Your task to perform on an android device: Open Maps and search for coffee Image 0: 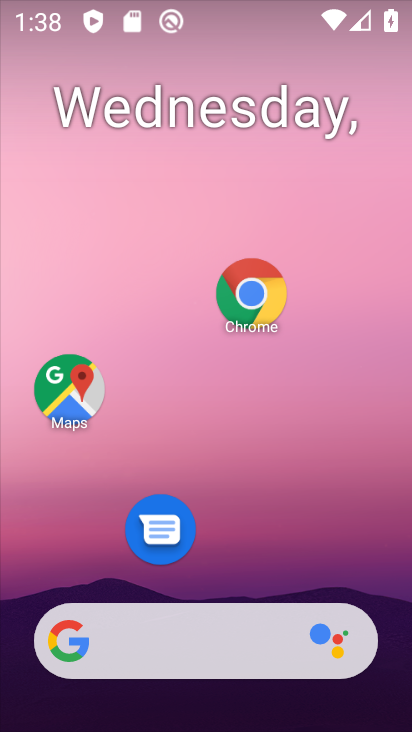
Step 0: click (92, 410)
Your task to perform on an android device: Open Maps and search for coffee Image 1: 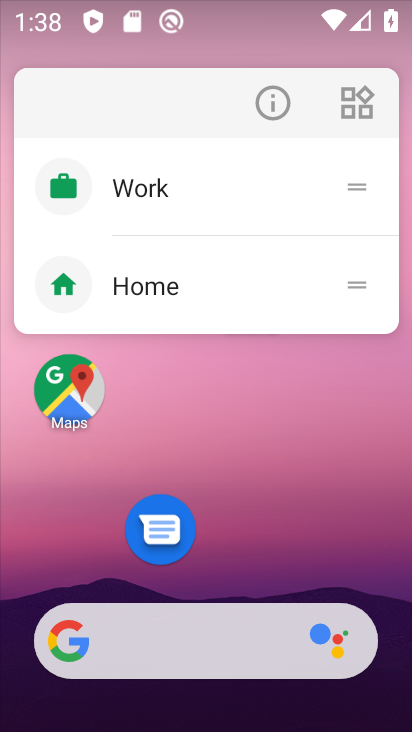
Step 1: click (75, 388)
Your task to perform on an android device: Open Maps and search for coffee Image 2: 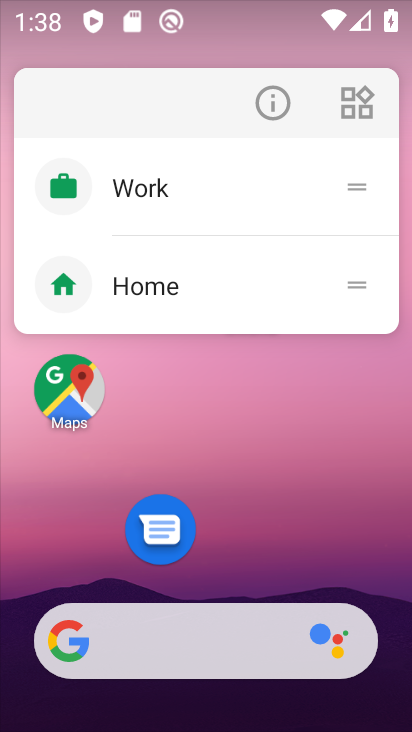
Step 2: click (100, 396)
Your task to perform on an android device: Open Maps and search for coffee Image 3: 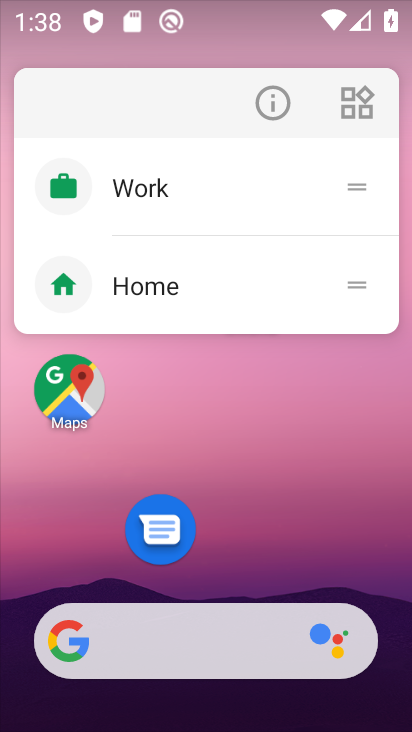
Step 3: click (78, 403)
Your task to perform on an android device: Open Maps and search for coffee Image 4: 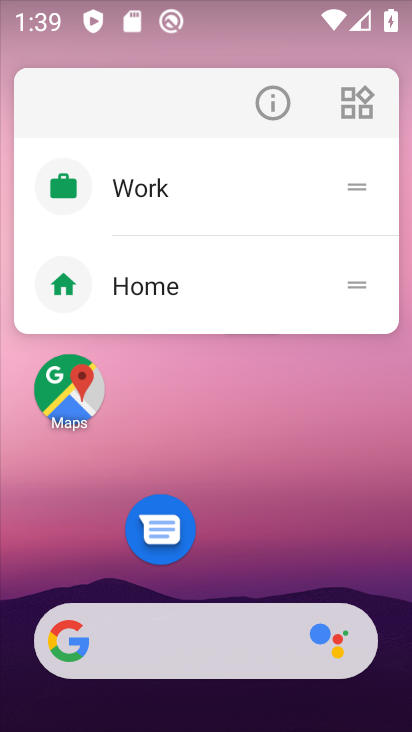
Step 4: click (274, 450)
Your task to perform on an android device: Open Maps and search for coffee Image 5: 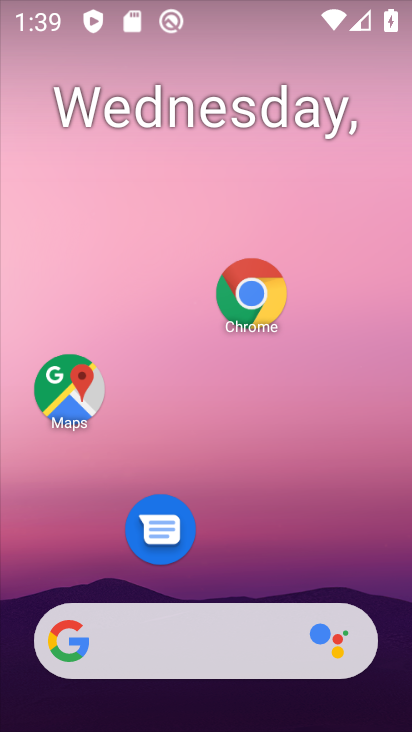
Step 5: click (66, 407)
Your task to perform on an android device: Open Maps and search for coffee Image 6: 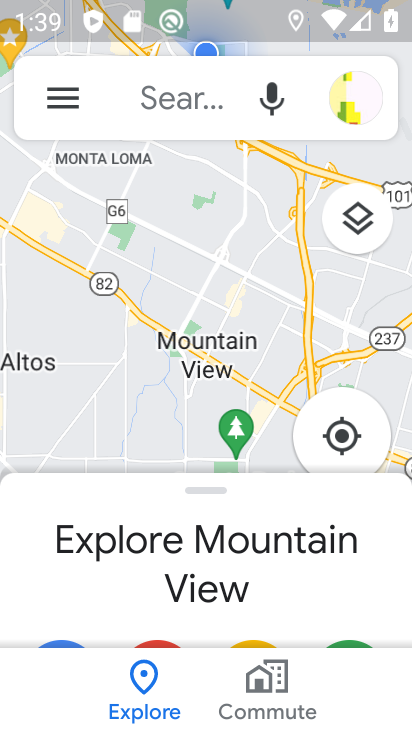
Step 6: click (151, 93)
Your task to perform on an android device: Open Maps and search for coffee Image 7: 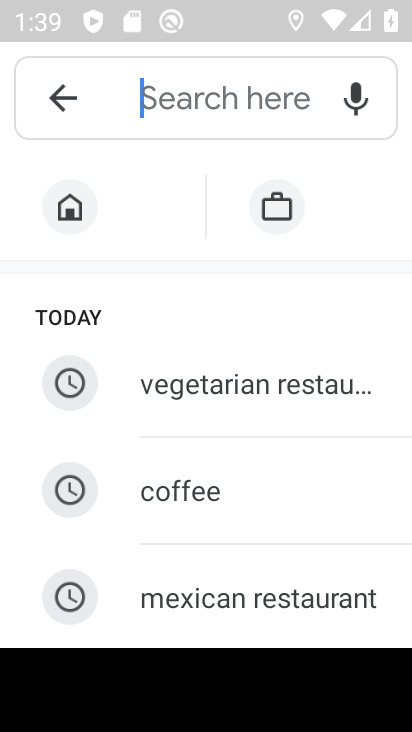
Step 7: type "coffee"
Your task to perform on an android device: Open Maps and search for coffee Image 8: 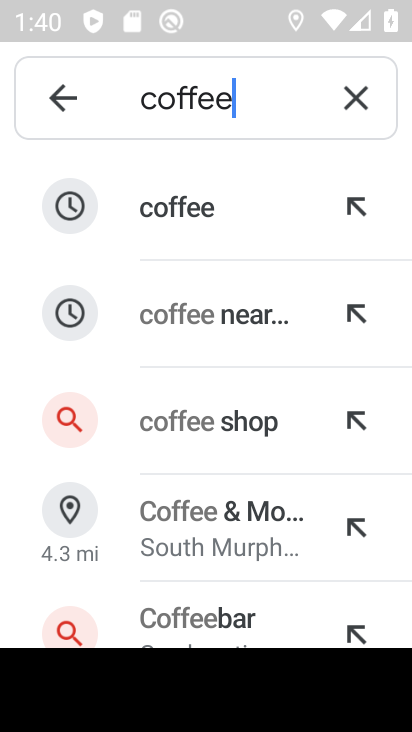
Step 8: click (257, 245)
Your task to perform on an android device: Open Maps and search for coffee Image 9: 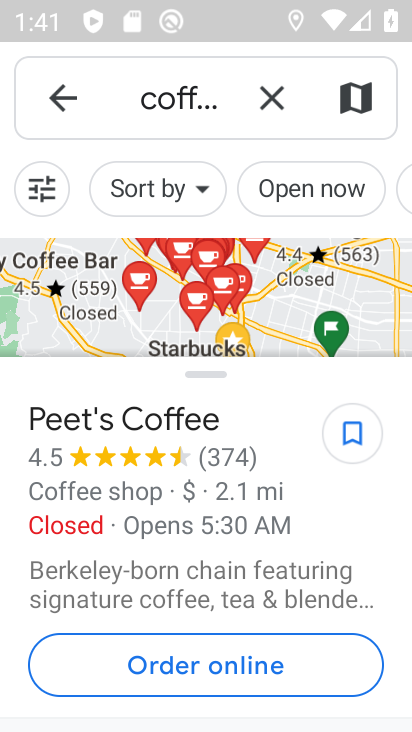
Step 9: task complete